Your task to perform on an android device: open chrome privacy settings Image 0: 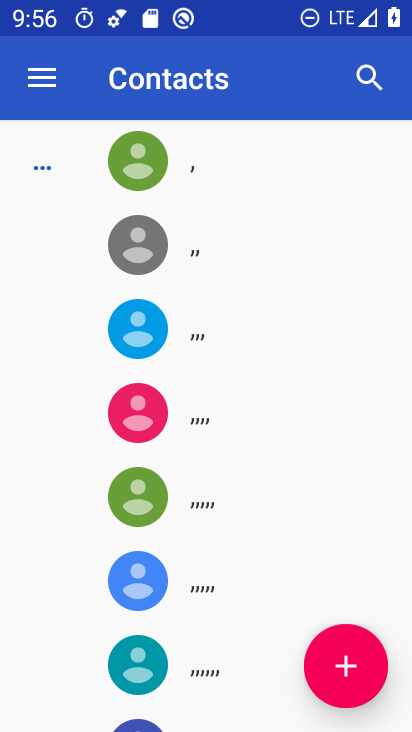
Step 0: press home button
Your task to perform on an android device: open chrome privacy settings Image 1: 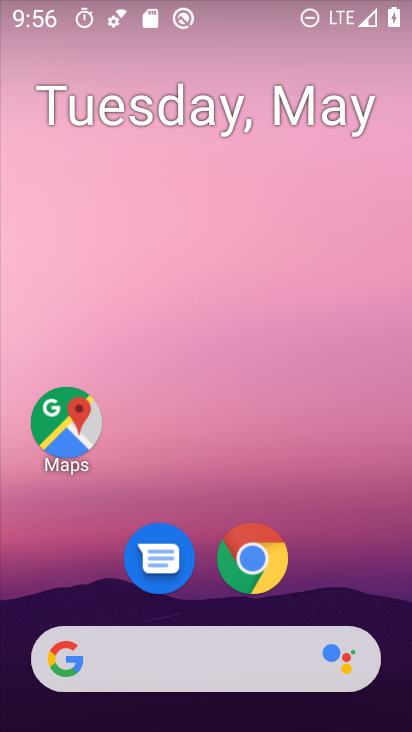
Step 1: drag from (404, 496) to (346, 50)
Your task to perform on an android device: open chrome privacy settings Image 2: 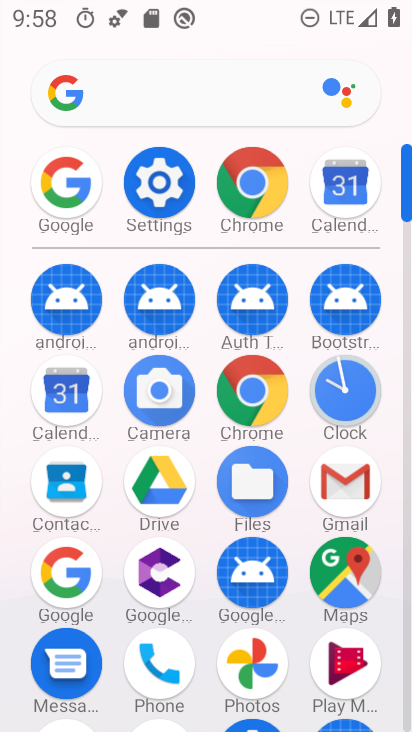
Step 2: click (158, 201)
Your task to perform on an android device: open chrome privacy settings Image 3: 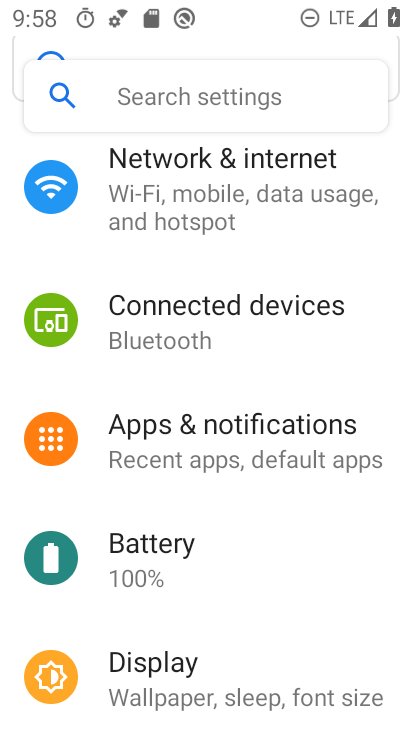
Step 3: press home button
Your task to perform on an android device: open chrome privacy settings Image 4: 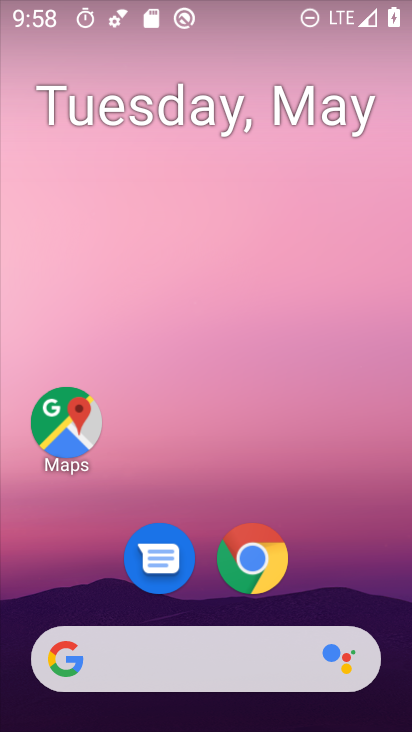
Step 4: click (268, 570)
Your task to perform on an android device: open chrome privacy settings Image 5: 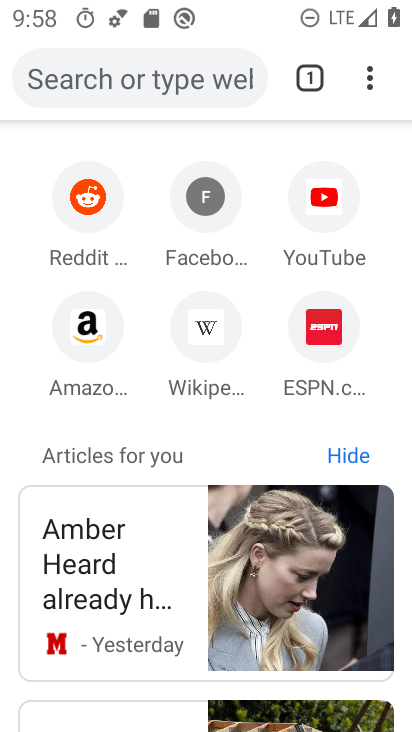
Step 5: click (364, 79)
Your task to perform on an android device: open chrome privacy settings Image 6: 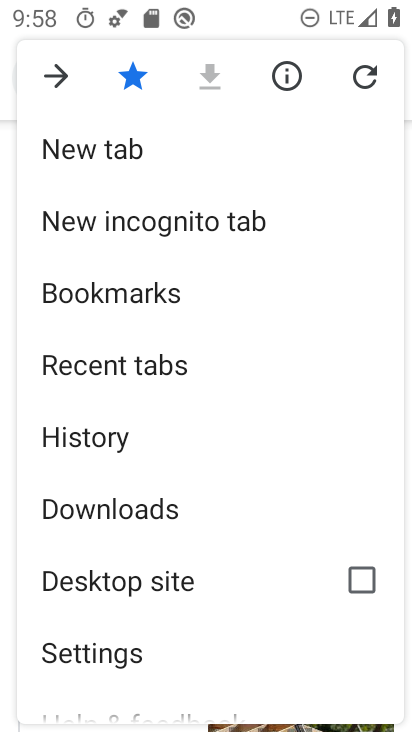
Step 6: click (92, 671)
Your task to perform on an android device: open chrome privacy settings Image 7: 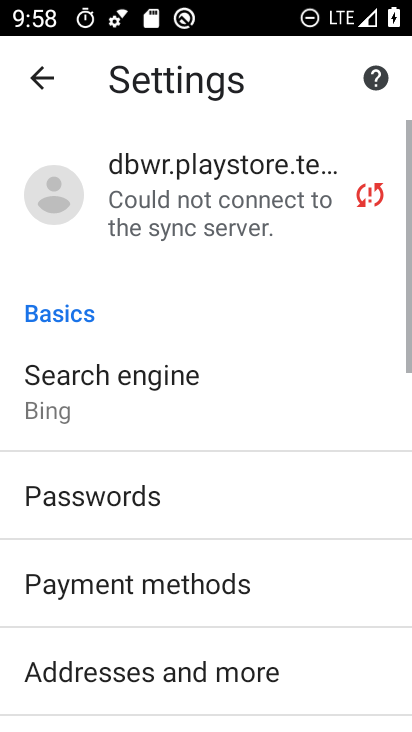
Step 7: drag from (92, 671) to (180, 140)
Your task to perform on an android device: open chrome privacy settings Image 8: 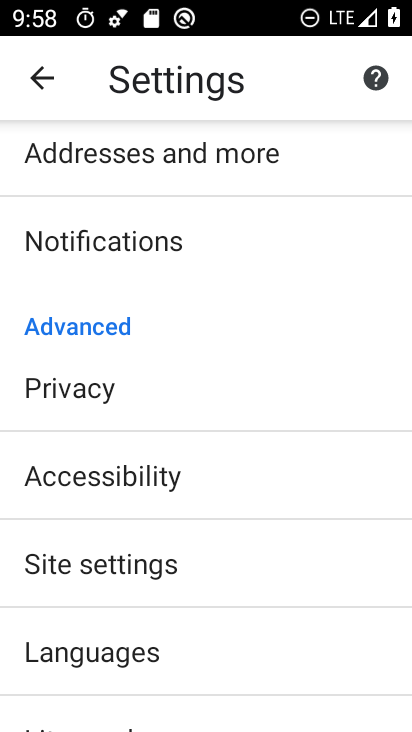
Step 8: click (122, 406)
Your task to perform on an android device: open chrome privacy settings Image 9: 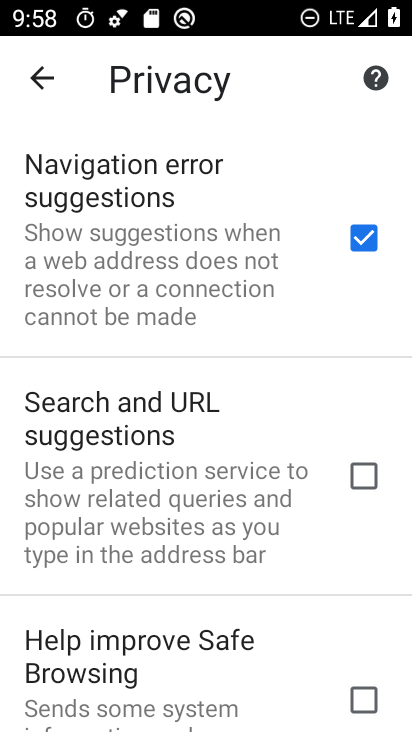
Step 9: task complete